Your task to perform on an android device: What's the weather? Image 0: 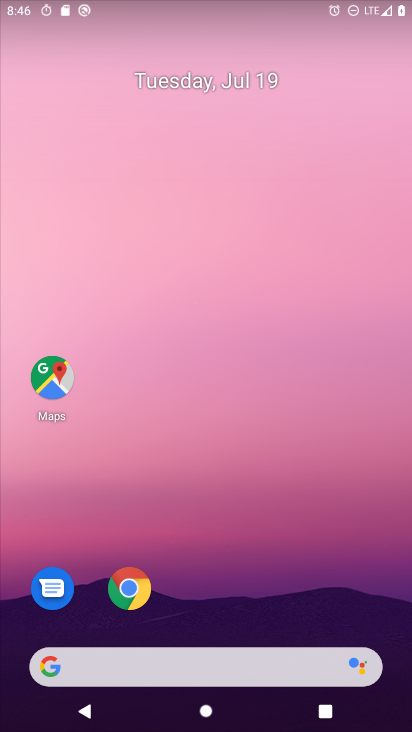
Step 0: drag from (214, 580) to (253, 144)
Your task to perform on an android device: What's the weather? Image 1: 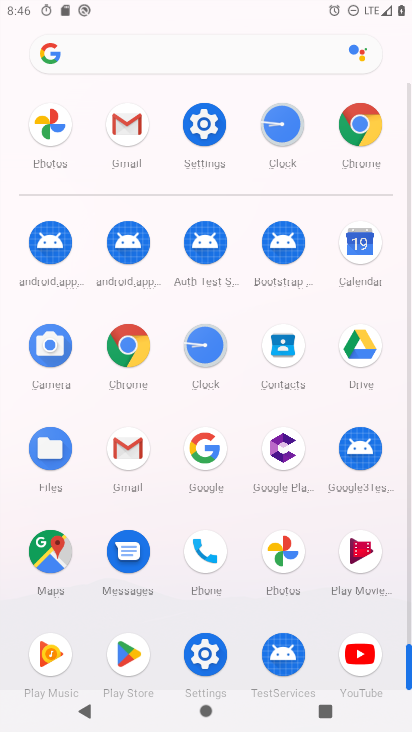
Step 1: click (121, 359)
Your task to perform on an android device: What's the weather? Image 2: 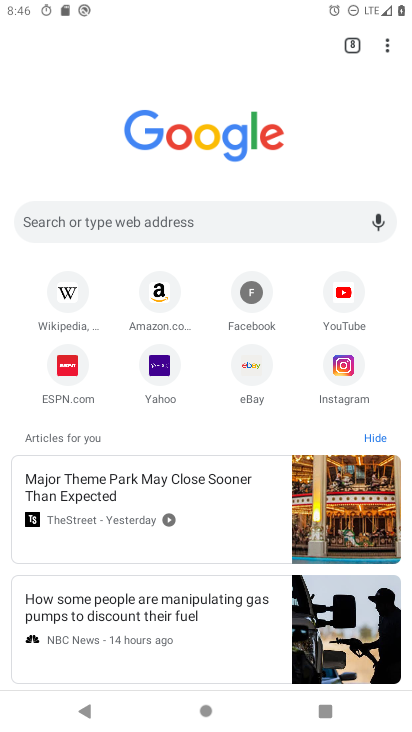
Step 2: click (206, 231)
Your task to perform on an android device: What's the weather? Image 3: 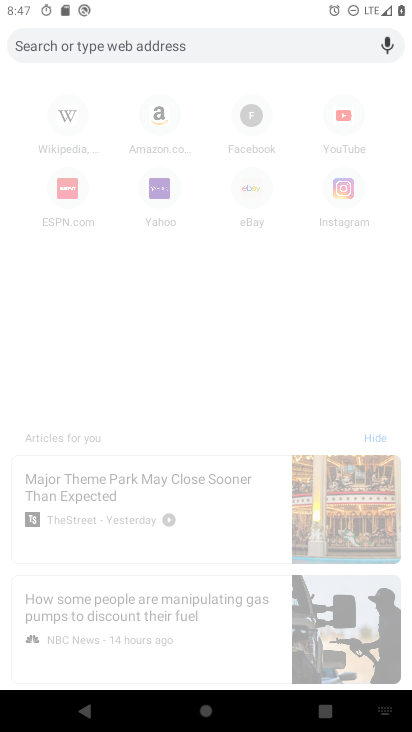
Step 3: type "weather"
Your task to perform on an android device: What's the weather? Image 4: 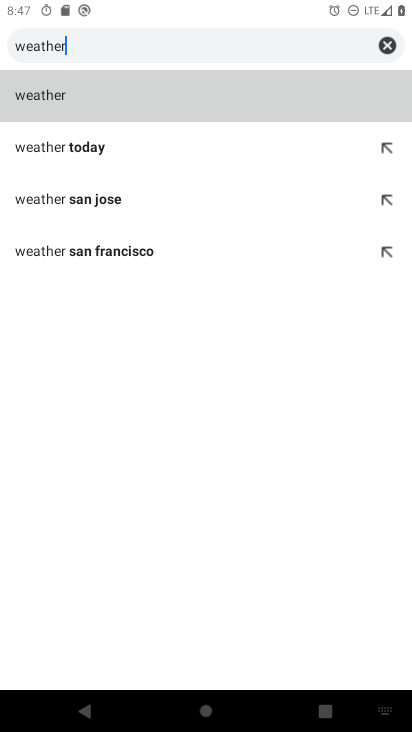
Step 4: type ""
Your task to perform on an android device: What's the weather? Image 5: 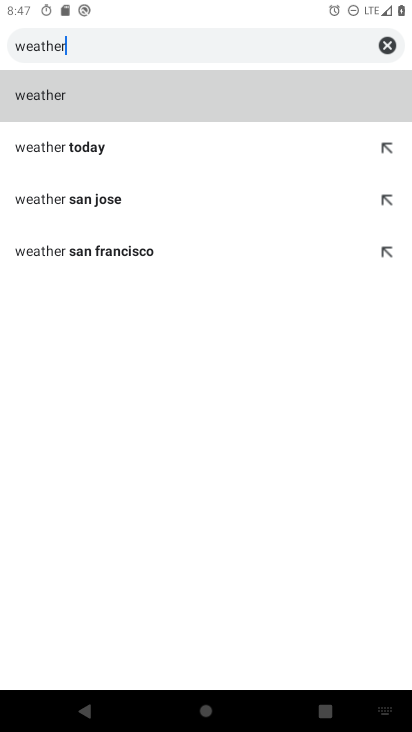
Step 5: click (103, 108)
Your task to perform on an android device: What's the weather? Image 6: 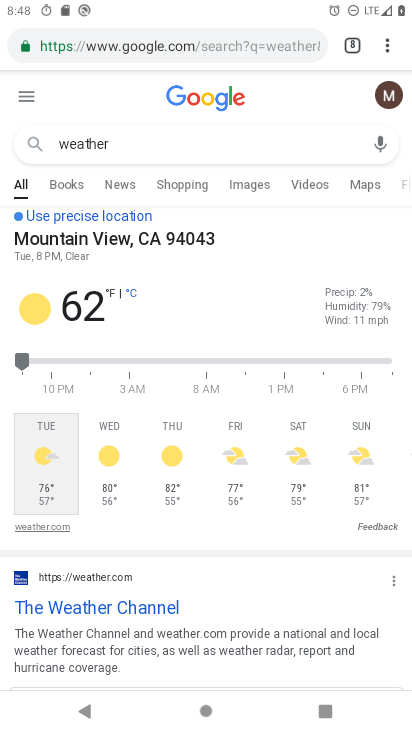
Step 6: task complete